Your task to perform on an android device: Open calendar and show me the second week of next month Image 0: 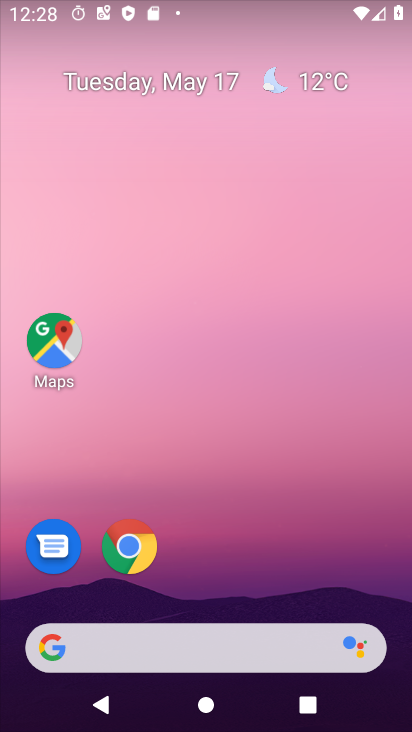
Step 0: drag from (233, 607) to (370, 227)
Your task to perform on an android device: Open calendar and show me the second week of next month Image 1: 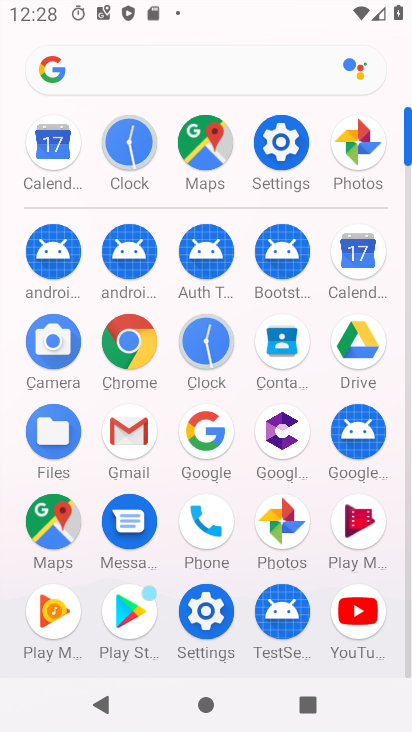
Step 1: click (361, 259)
Your task to perform on an android device: Open calendar and show me the second week of next month Image 2: 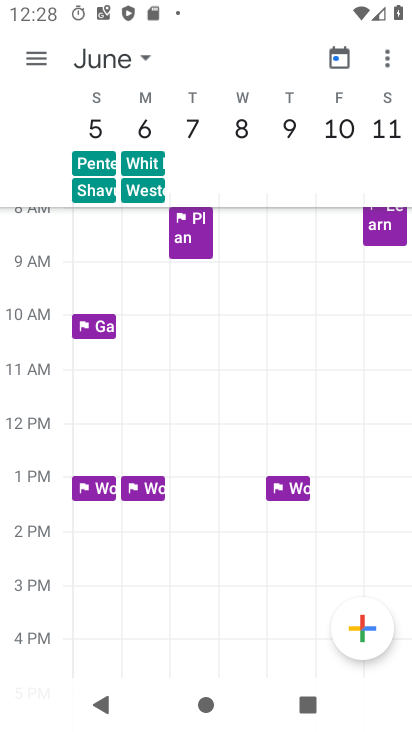
Step 2: task complete